Your task to perform on an android device: Open my contact list Image 0: 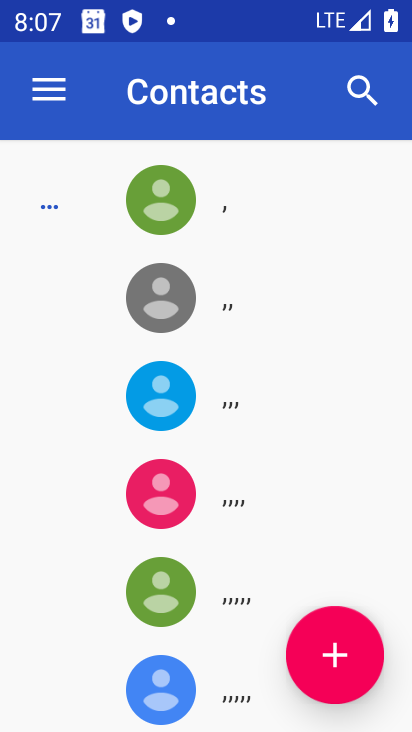
Step 0: press back button
Your task to perform on an android device: Open my contact list Image 1: 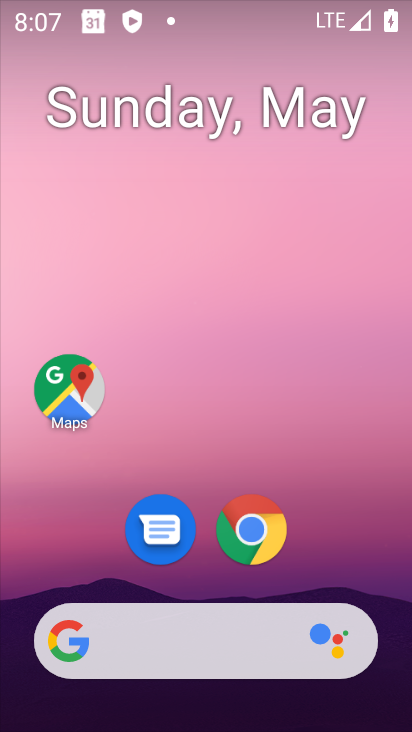
Step 1: drag from (140, 537) to (232, 55)
Your task to perform on an android device: Open my contact list Image 2: 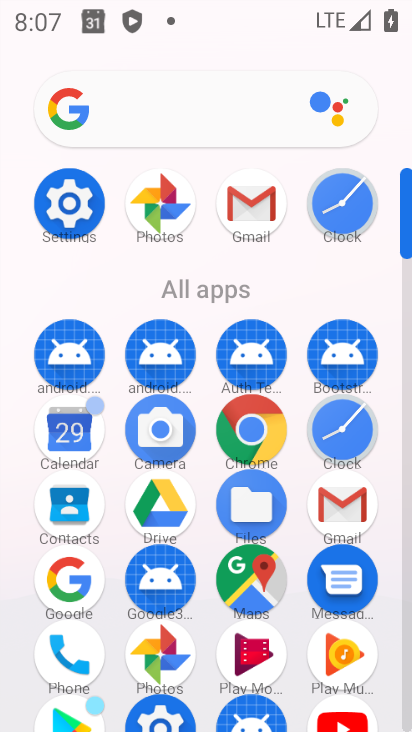
Step 2: click (62, 499)
Your task to perform on an android device: Open my contact list Image 3: 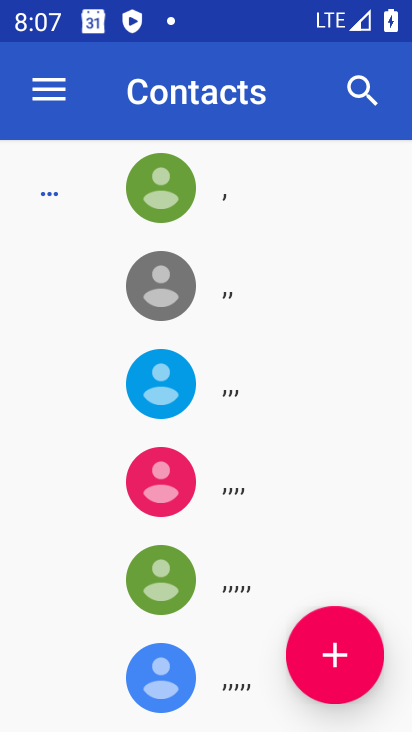
Step 3: task complete